Your task to perform on an android device: toggle show notifications on the lock screen Image 0: 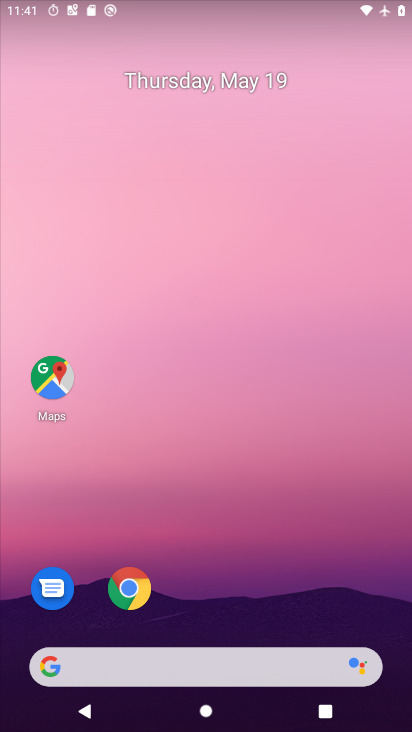
Step 0: press home button
Your task to perform on an android device: toggle show notifications on the lock screen Image 1: 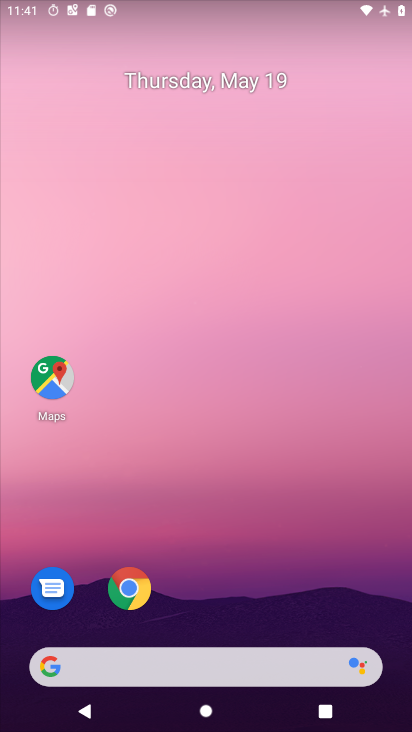
Step 1: drag from (134, 635) to (250, 140)
Your task to perform on an android device: toggle show notifications on the lock screen Image 2: 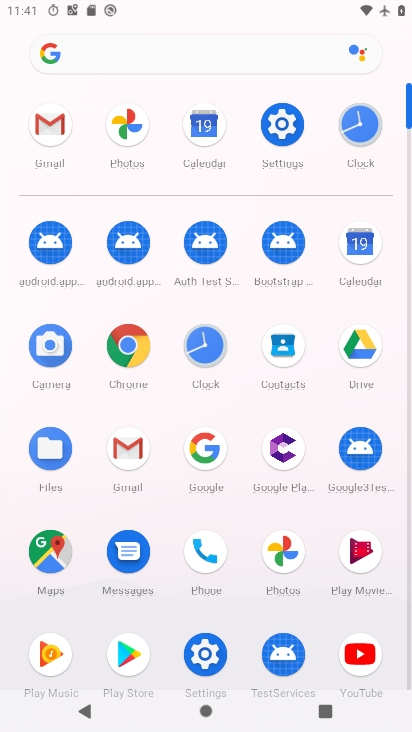
Step 2: click (282, 141)
Your task to perform on an android device: toggle show notifications on the lock screen Image 3: 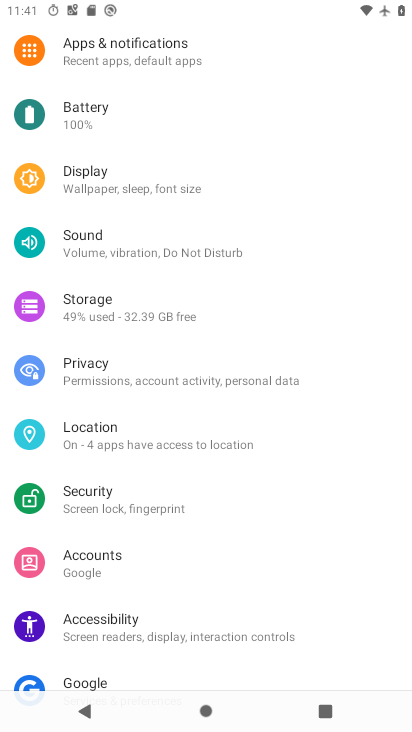
Step 3: click (139, 52)
Your task to perform on an android device: toggle show notifications on the lock screen Image 4: 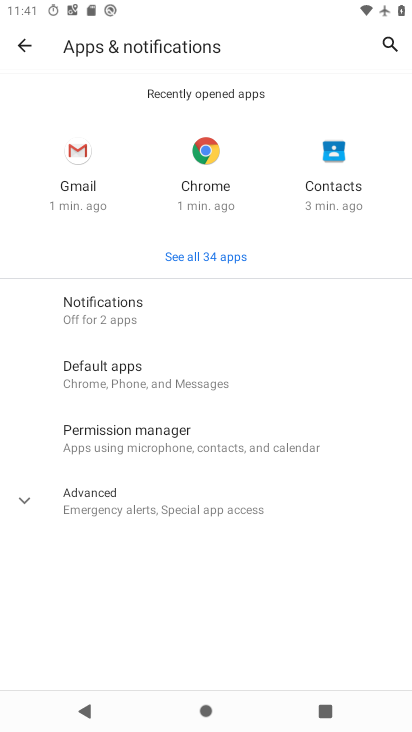
Step 4: click (120, 307)
Your task to perform on an android device: toggle show notifications on the lock screen Image 5: 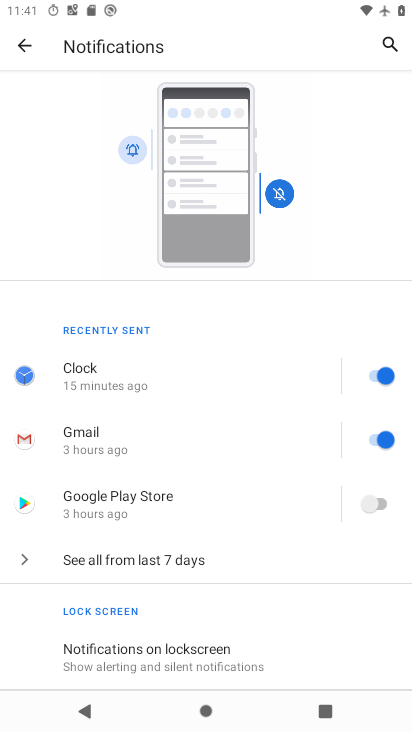
Step 5: click (175, 649)
Your task to perform on an android device: toggle show notifications on the lock screen Image 6: 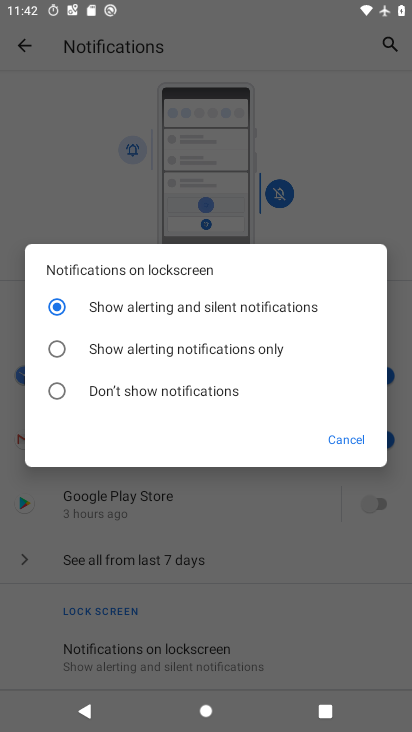
Step 6: click (56, 388)
Your task to perform on an android device: toggle show notifications on the lock screen Image 7: 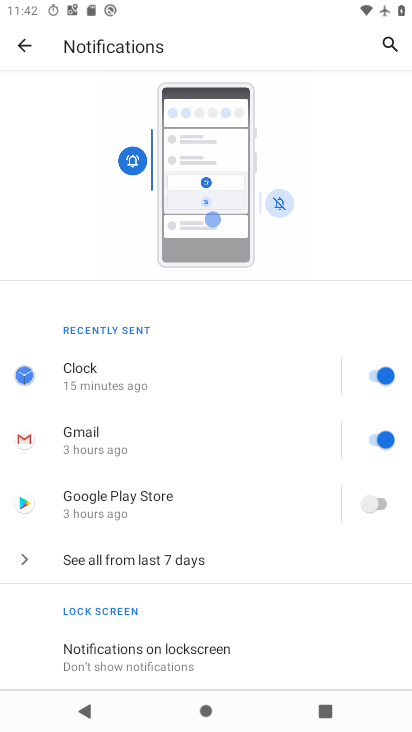
Step 7: task complete